Your task to perform on an android device: Turn on the flashlight Image 0: 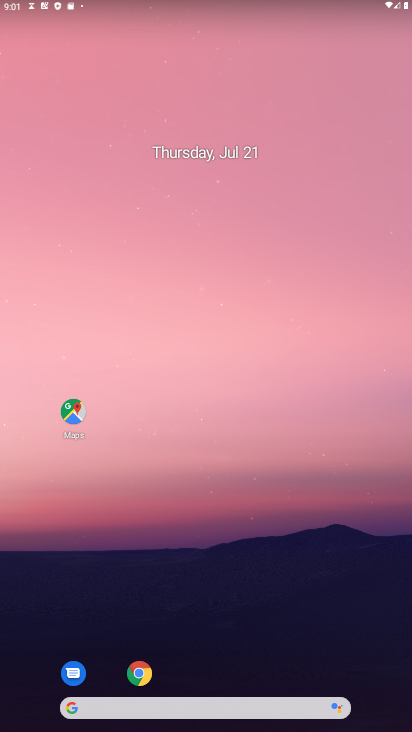
Step 0: drag from (293, 6) to (267, 496)
Your task to perform on an android device: Turn on the flashlight Image 1: 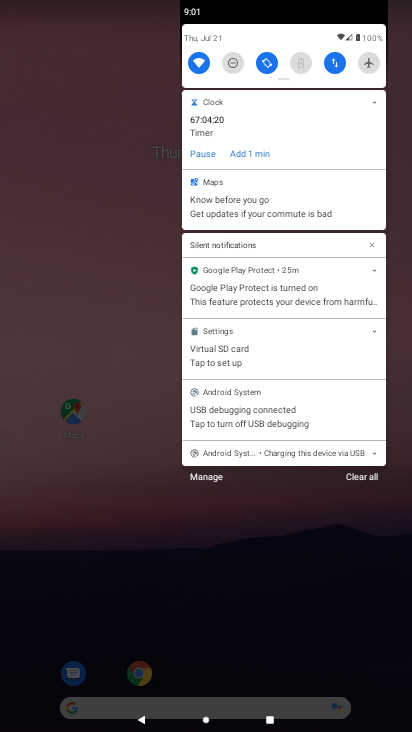
Step 1: drag from (285, 76) to (291, 378)
Your task to perform on an android device: Turn on the flashlight Image 2: 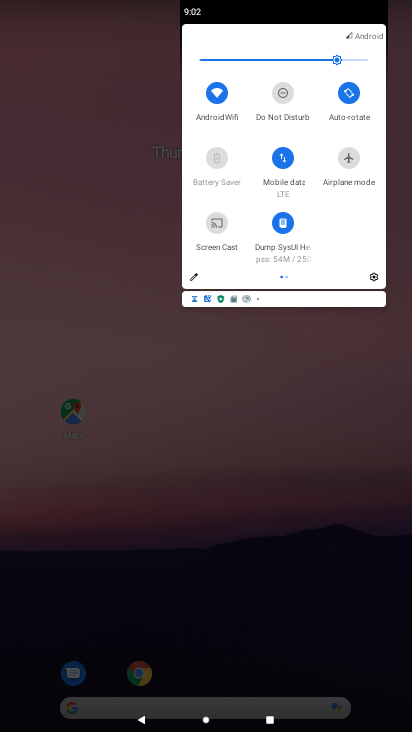
Step 2: drag from (336, 256) to (347, 423)
Your task to perform on an android device: Turn on the flashlight Image 3: 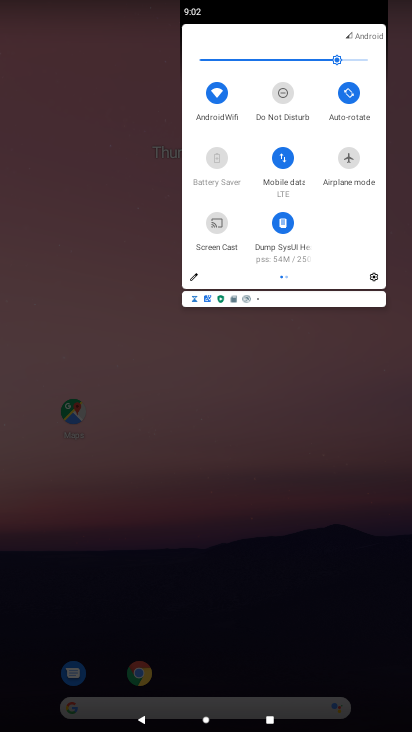
Step 3: click (194, 276)
Your task to perform on an android device: Turn on the flashlight Image 4: 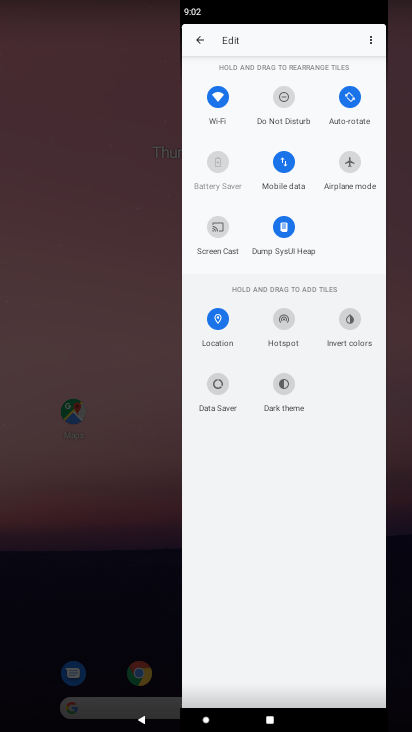
Step 4: task complete